Your task to perform on an android device: turn on improve location accuracy Image 0: 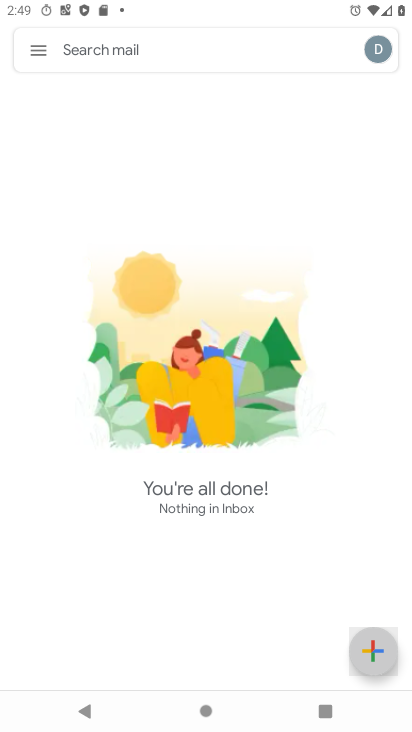
Step 0: press home button
Your task to perform on an android device: turn on improve location accuracy Image 1: 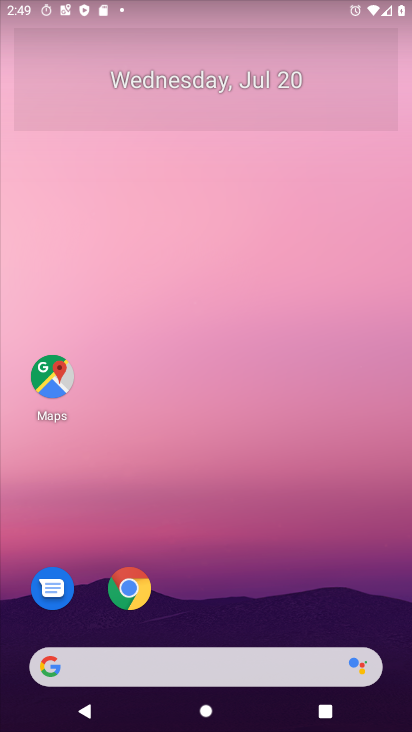
Step 1: drag from (243, 583) to (241, 56)
Your task to perform on an android device: turn on improve location accuracy Image 2: 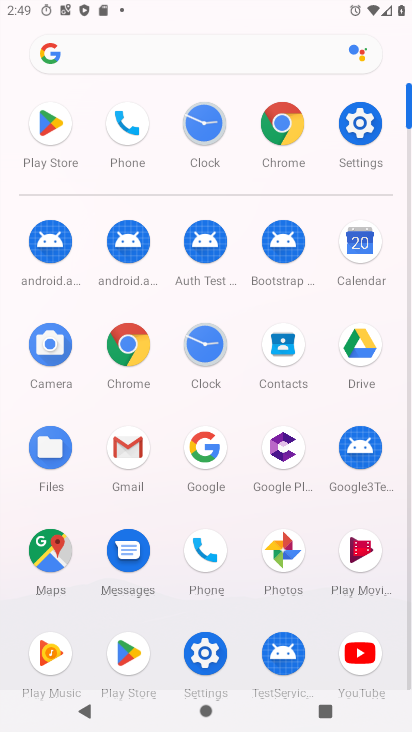
Step 2: click (360, 116)
Your task to perform on an android device: turn on improve location accuracy Image 3: 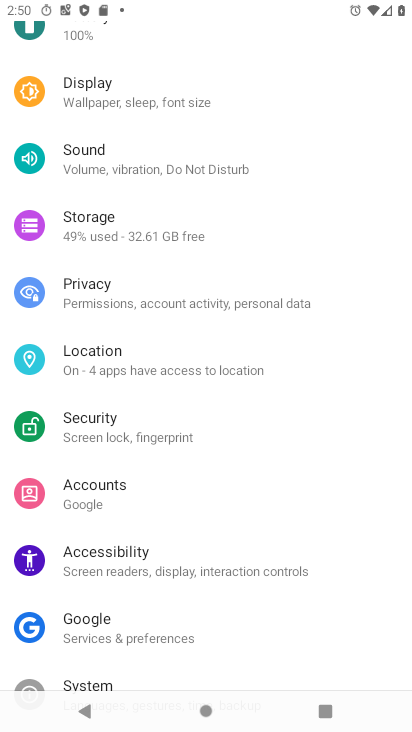
Step 3: drag from (110, 202) to (165, 587)
Your task to perform on an android device: turn on improve location accuracy Image 4: 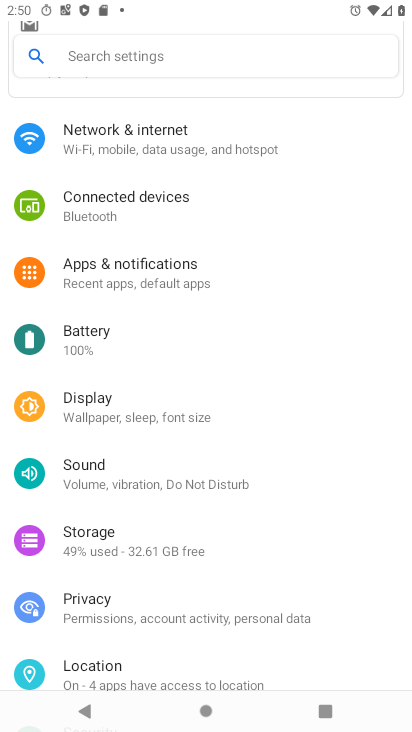
Step 4: drag from (188, 606) to (208, 207)
Your task to perform on an android device: turn on improve location accuracy Image 5: 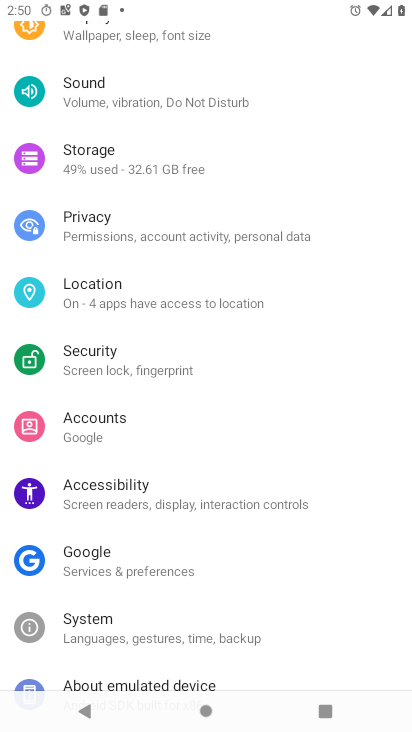
Step 5: drag from (82, 646) to (113, 209)
Your task to perform on an android device: turn on improve location accuracy Image 6: 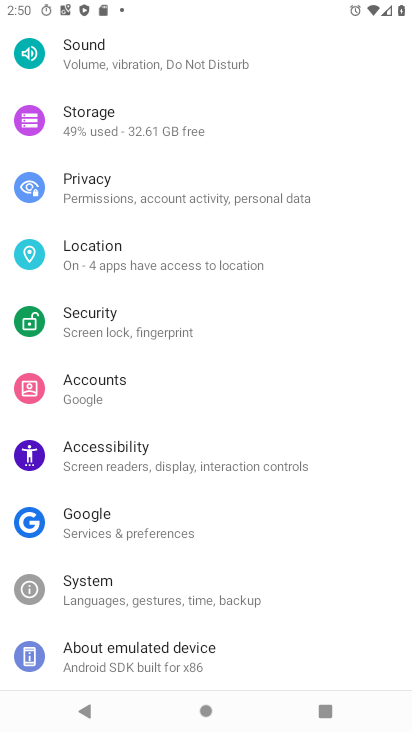
Step 6: click (137, 265)
Your task to perform on an android device: turn on improve location accuracy Image 7: 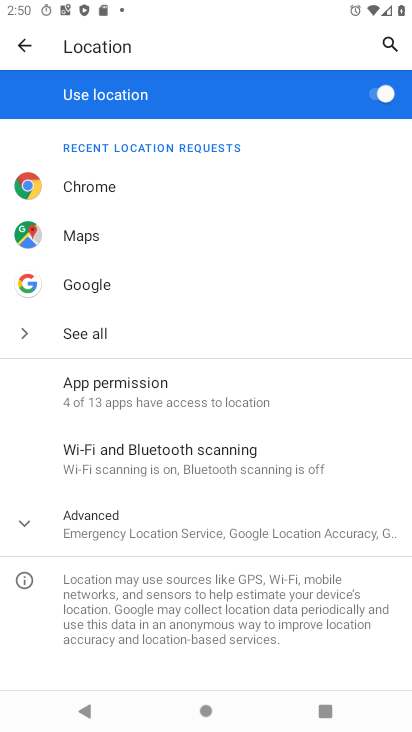
Step 7: click (141, 534)
Your task to perform on an android device: turn on improve location accuracy Image 8: 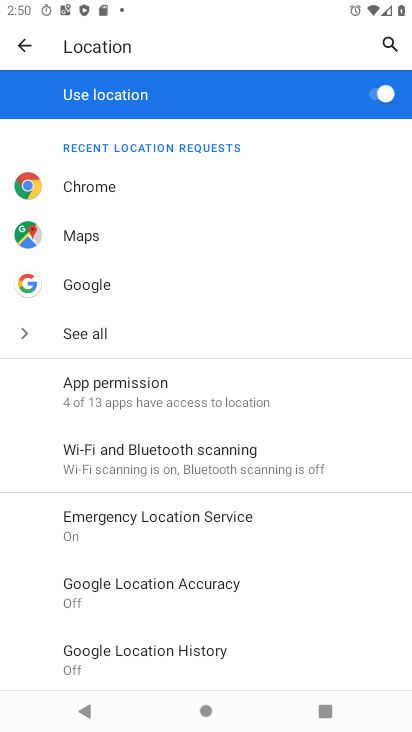
Step 8: click (184, 588)
Your task to perform on an android device: turn on improve location accuracy Image 9: 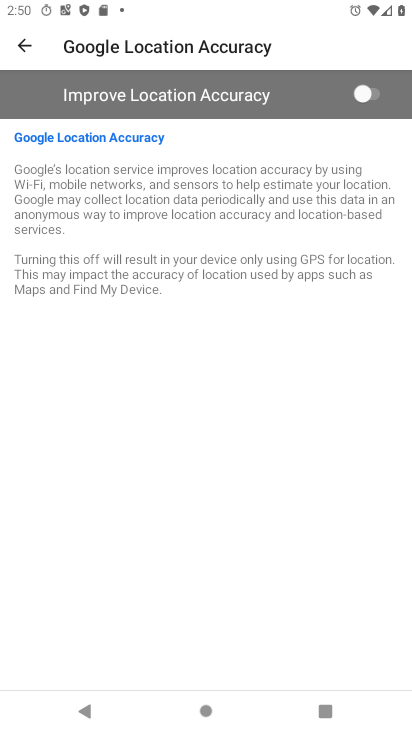
Step 9: click (367, 100)
Your task to perform on an android device: turn on improve location accuracy Image 10: 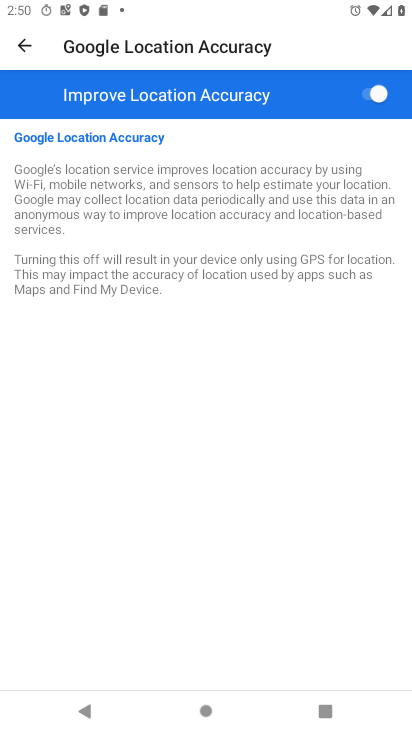
Step 10: task complete